Your task to perform on an android device: Open calendar and show me the third week of next month Image 0: 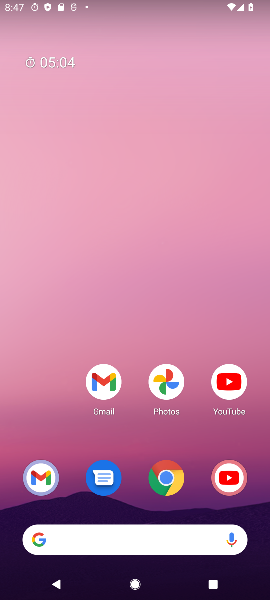
Step 0: press home button
Your task to perform on an android device: Open calendar and show me the third week of next month Image 1: 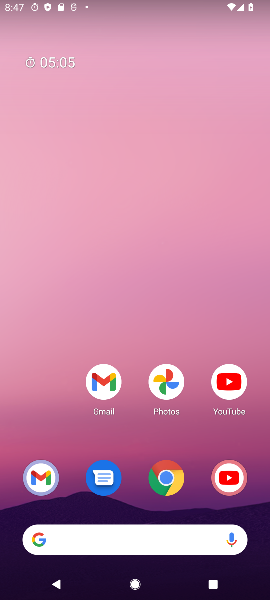
Step 1: drag from (143, 533) to (158, 190)
Your task to perform on an android device: Open calendar and show me the third week of next month Image 2: 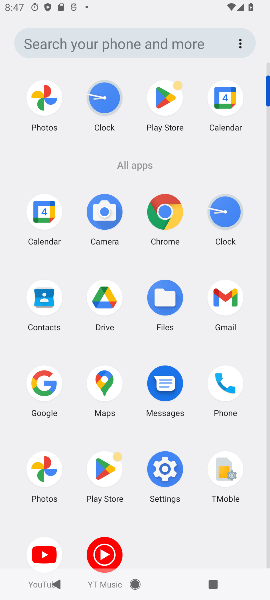
Step 2: click (52, 225)
Your task to perform on an android device: Open calendar and show me the third week of next month Image 3: 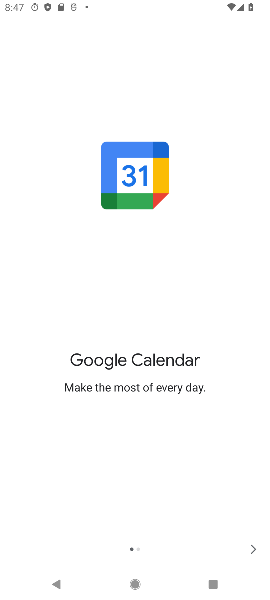
Step 3: click (249, 545)
Your task to perform on an android device: Open calendar and show me the third week of next month Image 4: 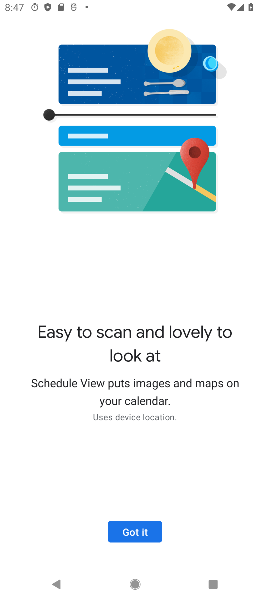
Step 4: click (130, 542)
Your task to perform on an android device: Open calendar and show me the third week of next month Image 5: 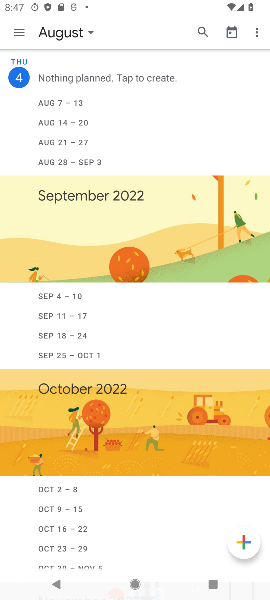
Step 5: click (83, 36)
Your task to perform on an android device: Open calendar and show me the third week of next month Image 6: 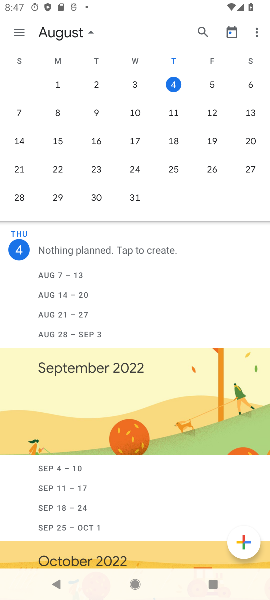
Step 6: drag from (256, 123) to (11, 155)
Your task to perform on an android device: Open calendar and show me the third week of next month Image 7: 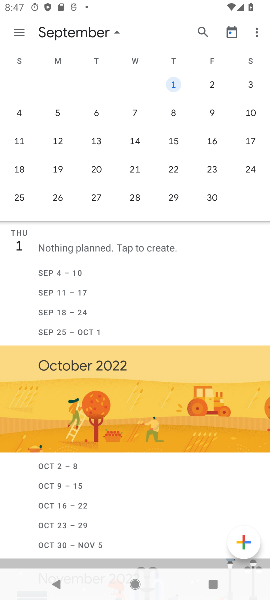
Step 7: click (170, 147)
Your task to perform on an android device: Open calendar and show me the third week of next month Image 8: 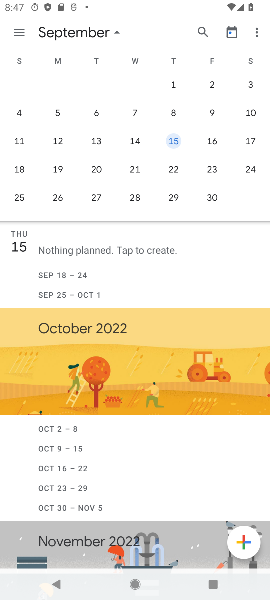
Step 8: task complete